Your task to perform on an android device: allow cookies in the chrome app Image 0: 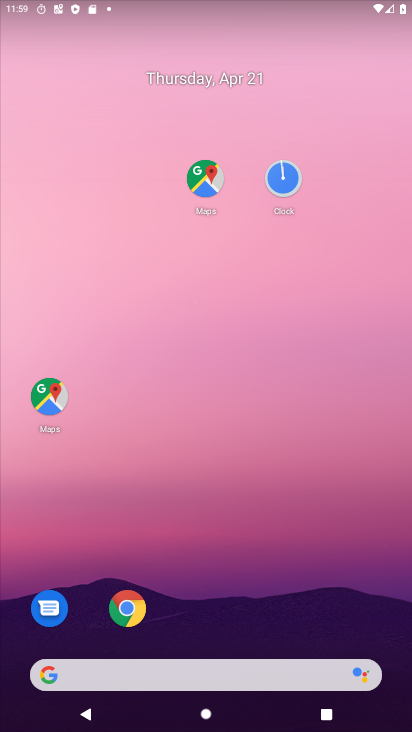
Step 0: drag from (298, 456) to (200, 168)
Your task to perform on an android device: allow cookies in the chrome app Image 1: 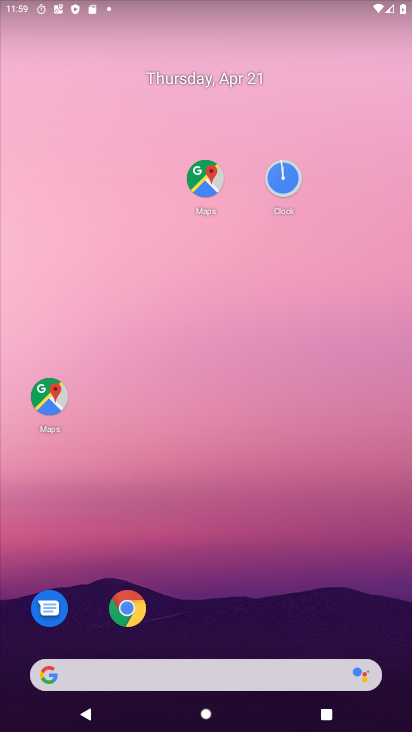
Step 1: drag from (253, 513) to (104, 31)
Your task to perform on an android device: allow cookies in the chrome app Image 2: 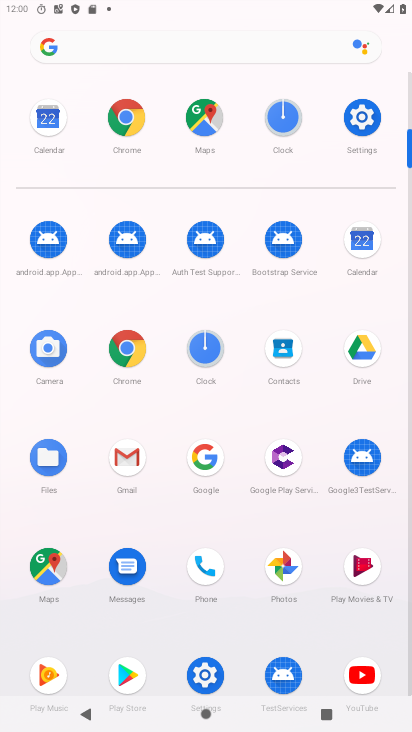
Step 2: click (129, 124)
Your task to perform on an android device: allow cookies in the chrome app Image 3: 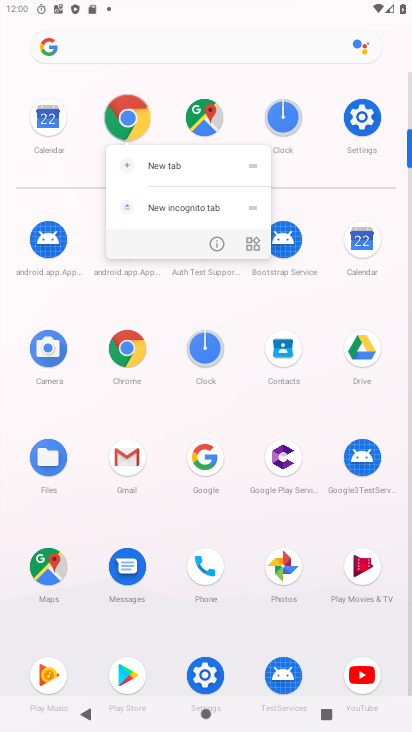
Step 3: click (129, 124)
Your task to perform on an android device: allow cookies in the chrome app Image 4: 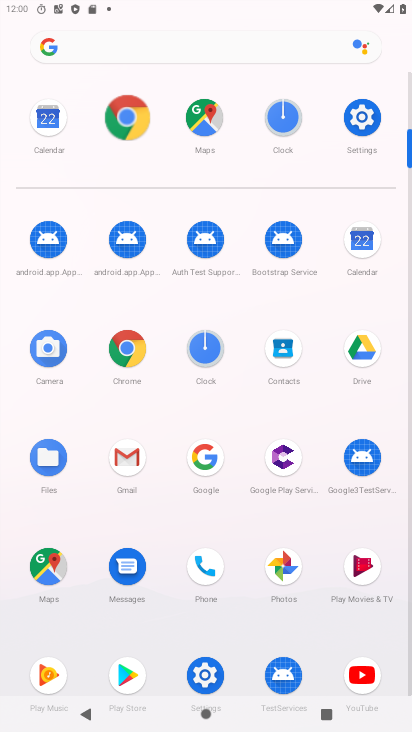
Step 4: click (129, 124)
Your task to perform on an android device: allow cookies in the chrome app Image 5: 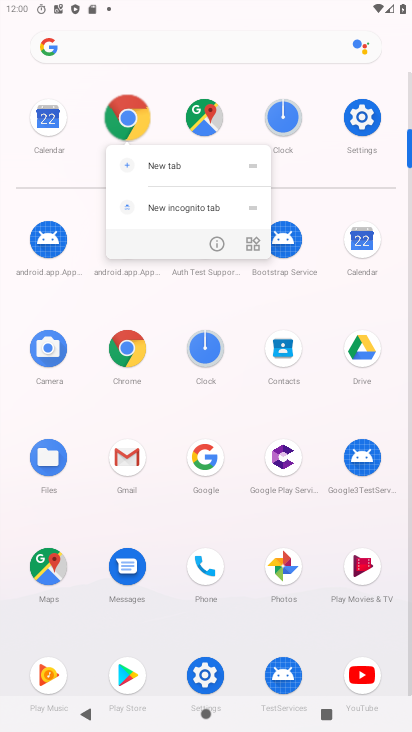
Step 5: click (131, 112)
Your task to perform on an android device: allow cookies in the chrome app Image 6: 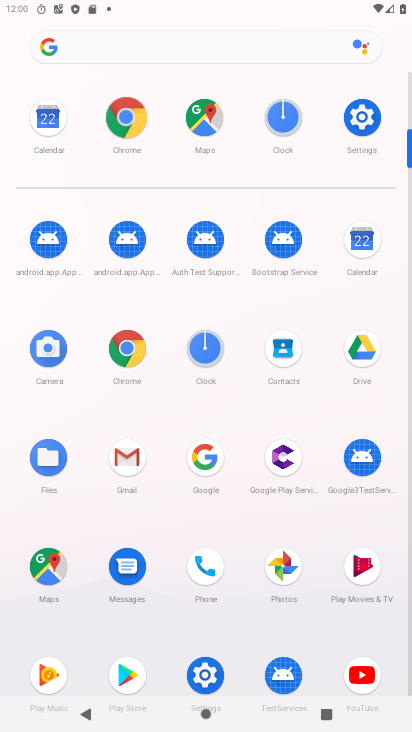
Step 6: click (131, 112)
Your task to perform on an android device: allow cookies in the chrome app Image 7: 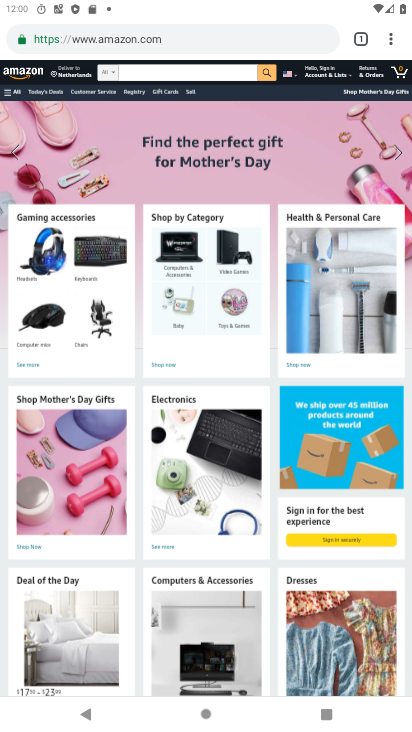
Step 7: drag from (388, 39) to (256, 507)
Your task to perform on an android device: allow cookies in the chrome app Image 8: 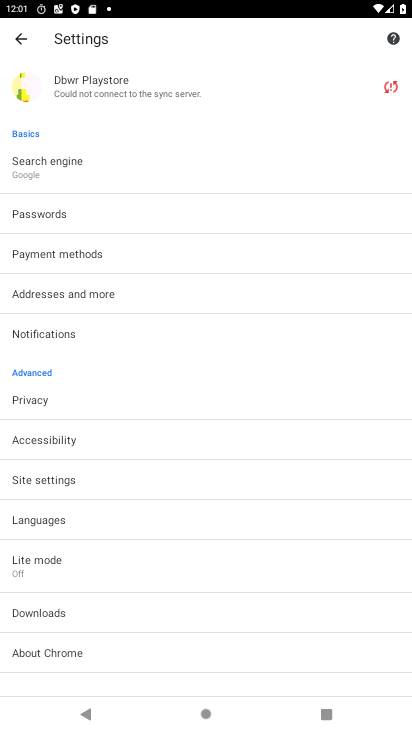
Step 8: click (37, 479)
Your task to perform on an android device: allow cookies in the chrome app Image 9: 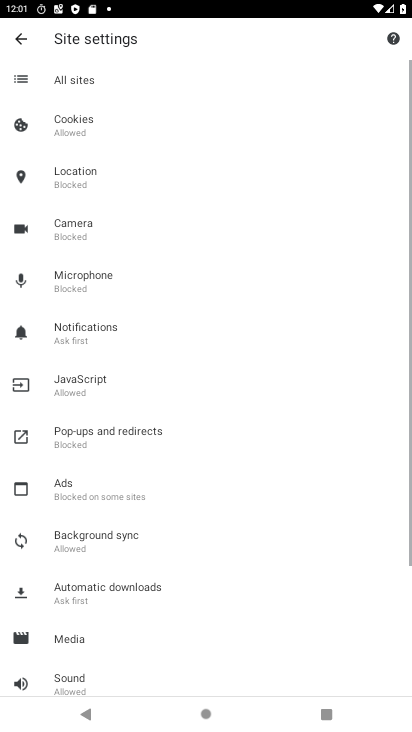
Step 9: click (32, 479)
Your task to perform on an android device: allow cookies in the chrome app Image 10: 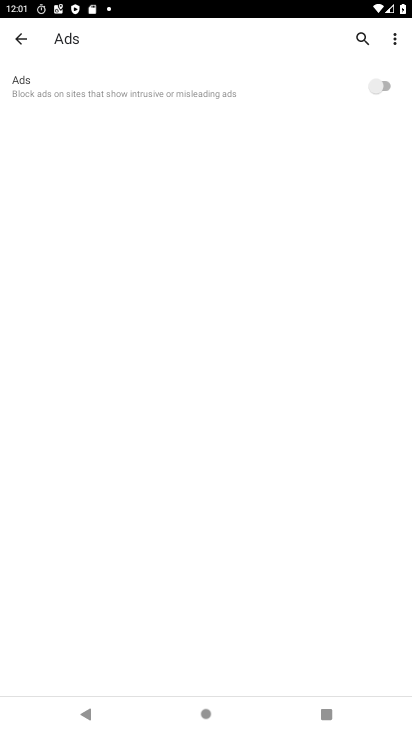
Step 10: click (21, 30)
Your task to perform on an android device: allow cookies in the chrome app Image 11: 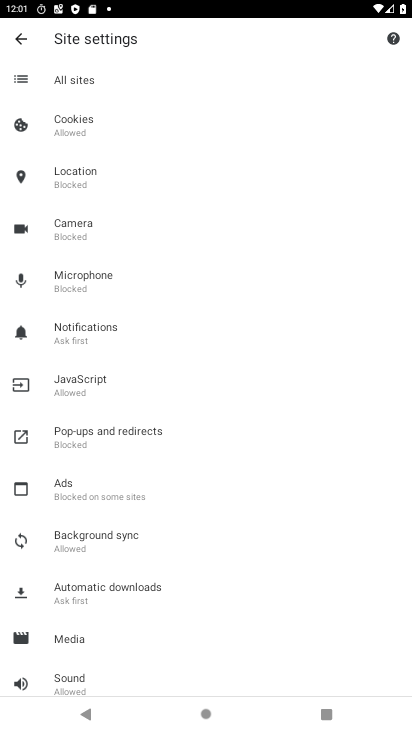
Step 11: click (75, 80)
Your task to perform on an android device: allow cookies in the chrome app Image 12: 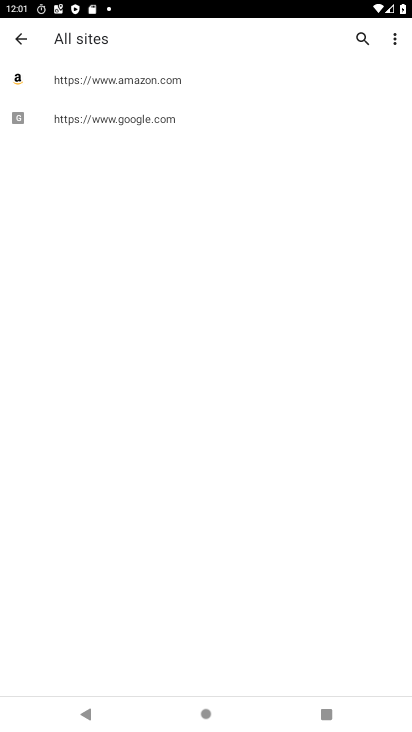
Step 12: click (19, 44)
Your task to perform on an android device: allow cookies in the chrome app Image 13: 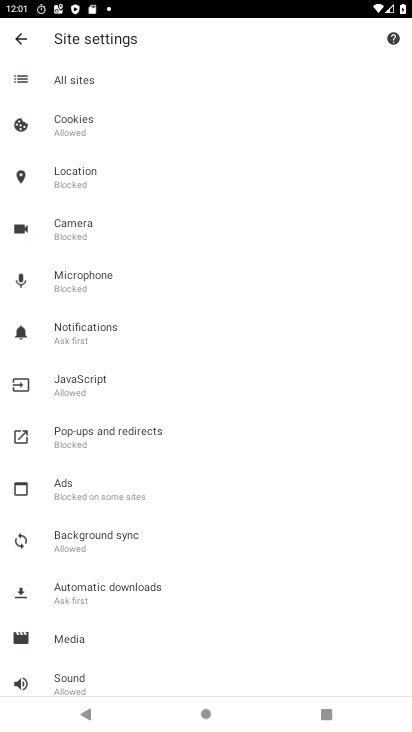
Step 13: click (65, 120)
Your task to perform on an android device: allow cookies in the chrome app Image 14: 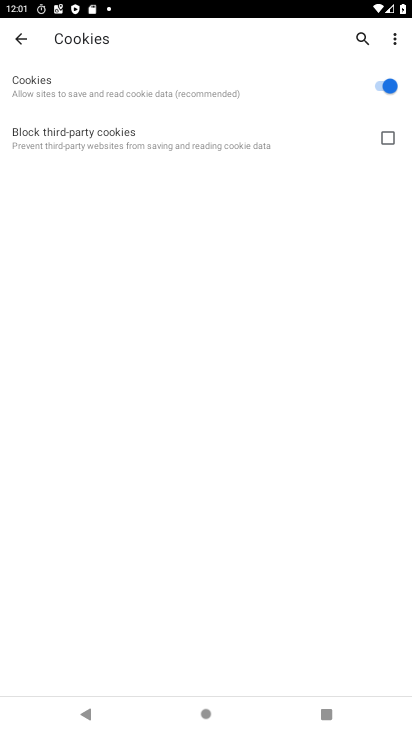
Step 14: task complete